Your task to perform on an android device: How much does a 3 bedroom apartment rent for in Seattle? Image 0: 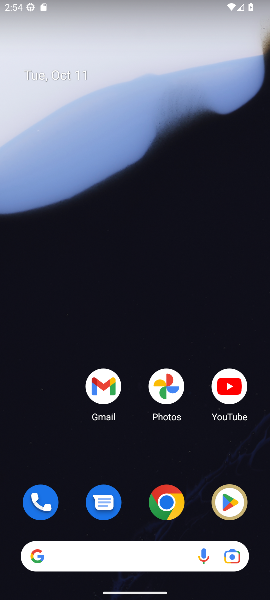
Step 0: click (168, 501)
Your task to perform on an android device: How much does a 3 bedroom apartment rent for in Seattle? Image 1: 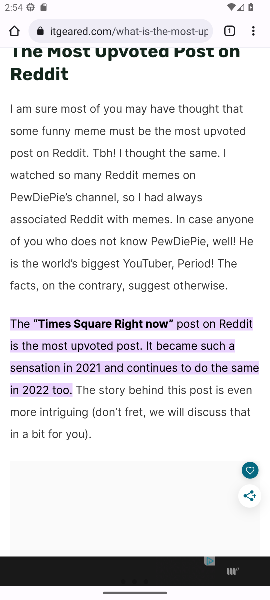
Step 1: click (253, 29)
Your task to perform on an android device: How much does a 3 bedroom apartment rent for in Seattle? Image 2: 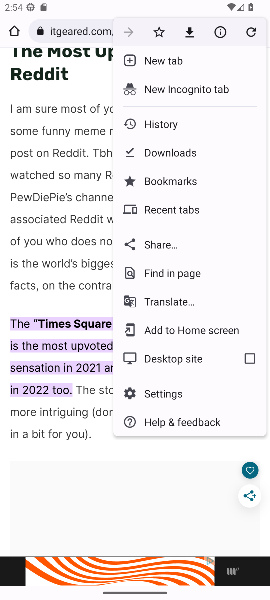
Step 2: click (147, 63)
Your task to perform on an android device: How much does a 3 bedroom apartment rent for in Seattle? Image 3: 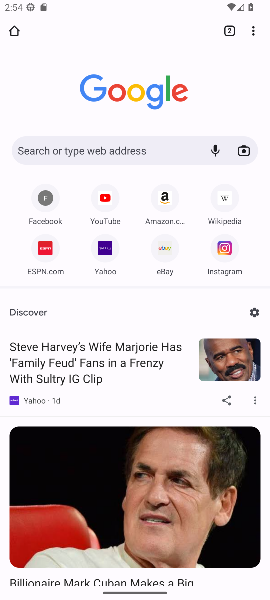
Step 3: click (61, 147)
Your task to perform on an android device: How much does a 3 bedroom apartment rent for in Seattle? Image 4: 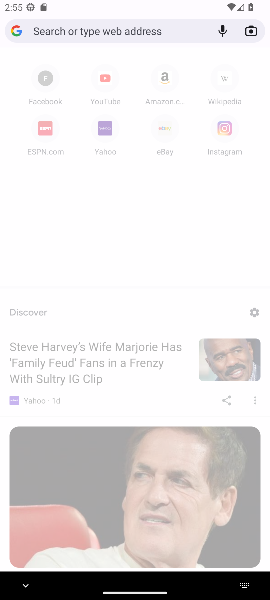
Step 4: type "How much does a 3 bedroom apartment rent for in Seattle?"
Your task to perform on an android device: How much does a 3 bedroom apartment rent for in Seattle? Image 5: 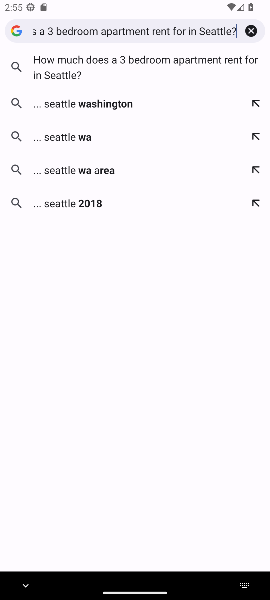
Step 5: click (128, 65)
Your task to perform on an android device: How much does a 3 bedroom apartment rent for in Seattle? Image 6: 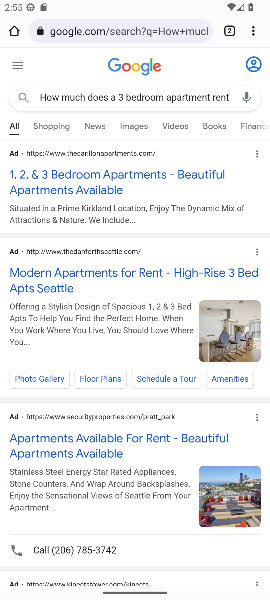
Step 6: click (103, 182)
Your task to perform on an android device: How much does a 3 bedroom apartment rent for in Seattle? Image 7: 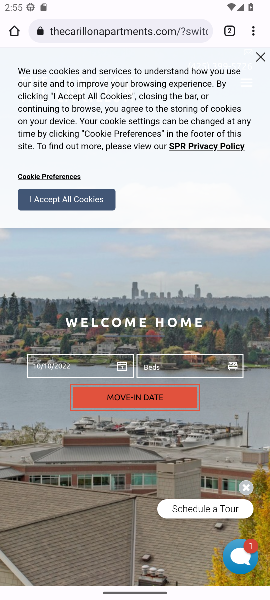
Step 7: click (259, 56)
Your task to perform on an android device: How much does a 3 bedroom apartment rent for in Seattle? Image 8: 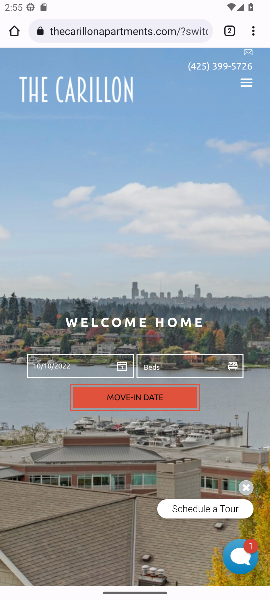
Step 8: task complete